Your task to perform on an android device: Open ESPN.com Image 0: 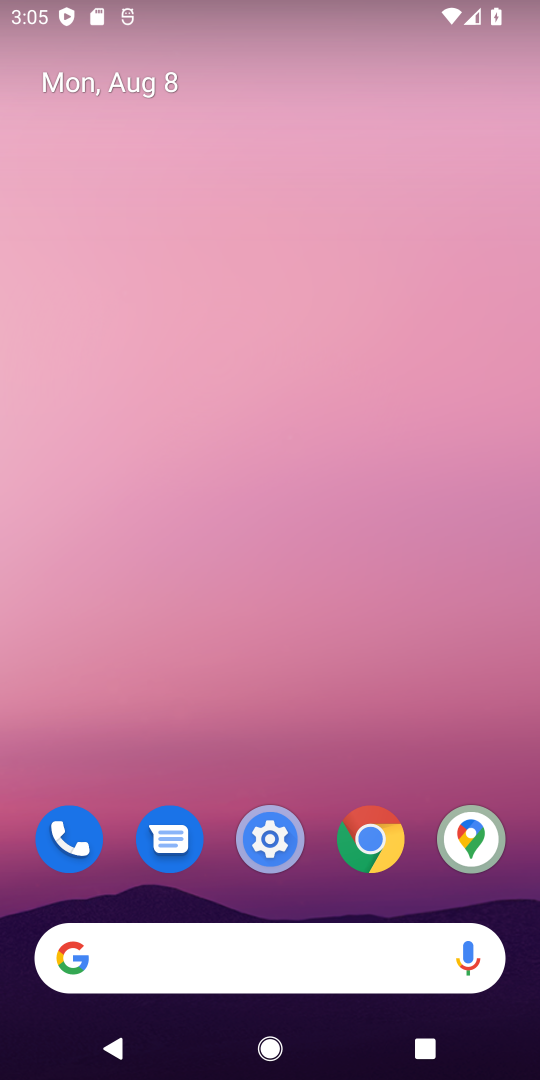
Step 0: click (389, 833)
Your task to perform on an android device: Open ESPN.com Image 1: 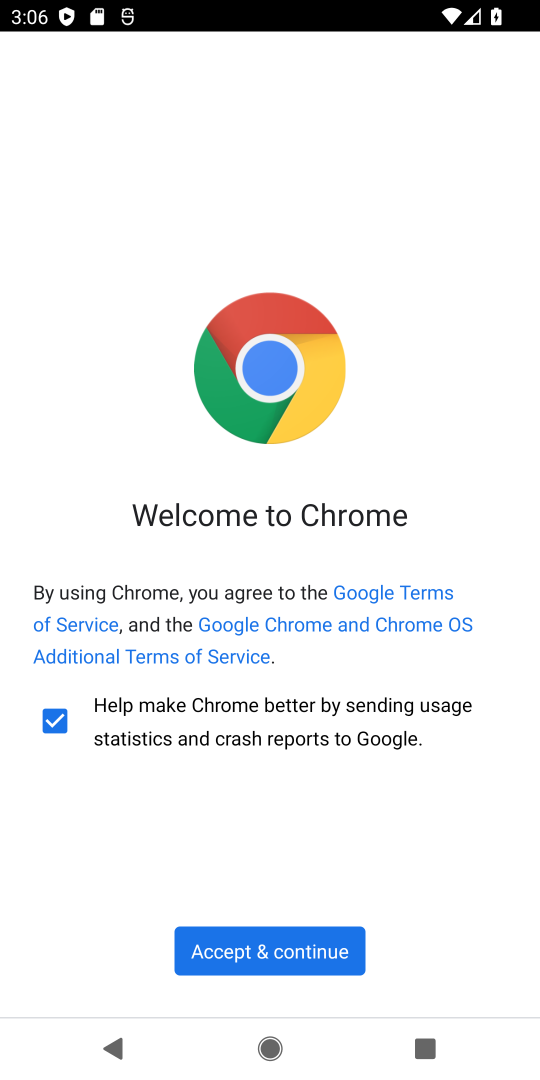
Step 1: click (295, 935)
Your task to perform on an android device: Open ESPN.com Image 2: 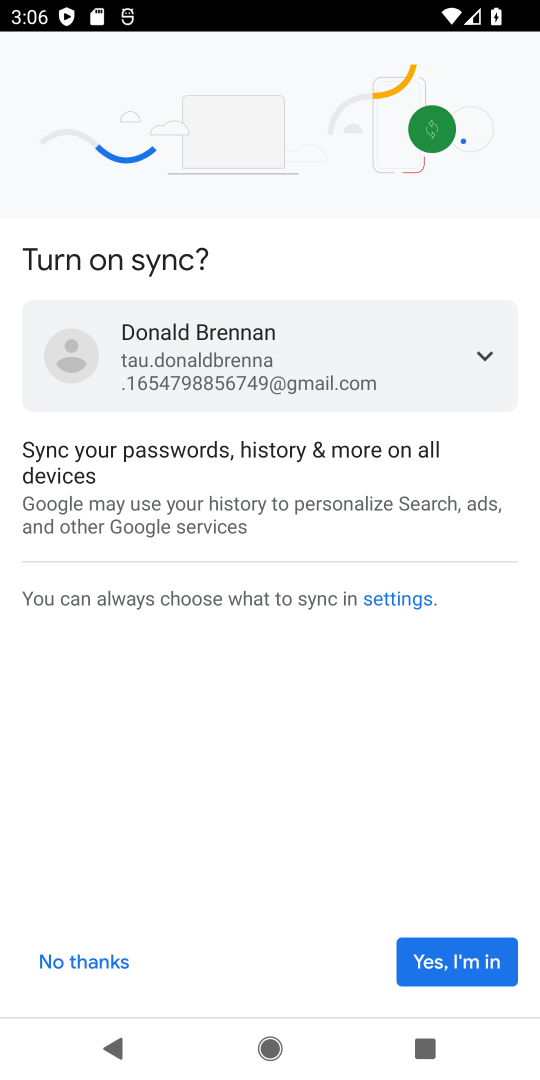
Step 2: click (497, 940)
Your task to perform on an android device: Open ESPN.com Image 3: 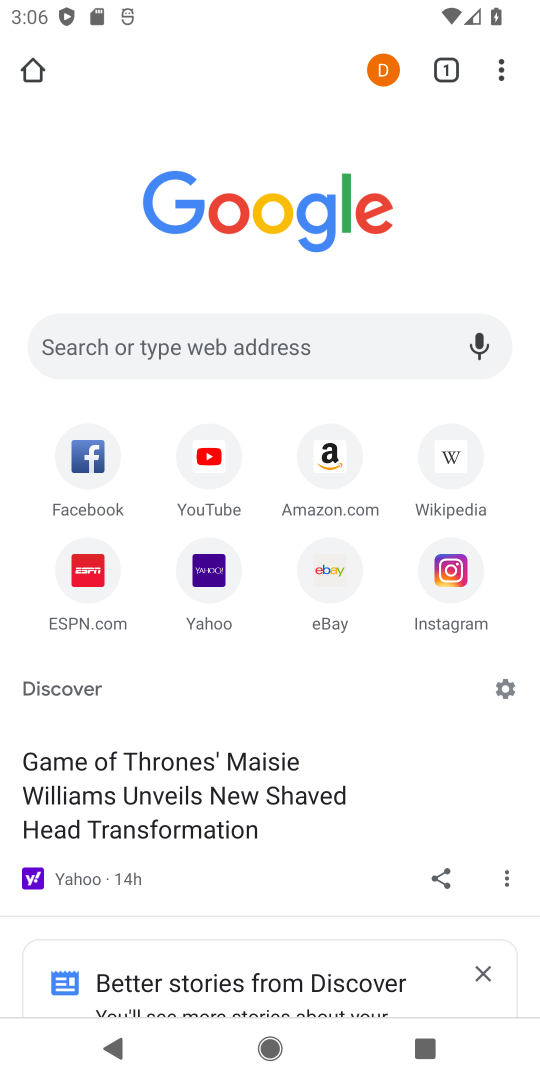
Step 3: click (69, 593)
Your task to perform on an android device: Open ESPN.com Image 4: 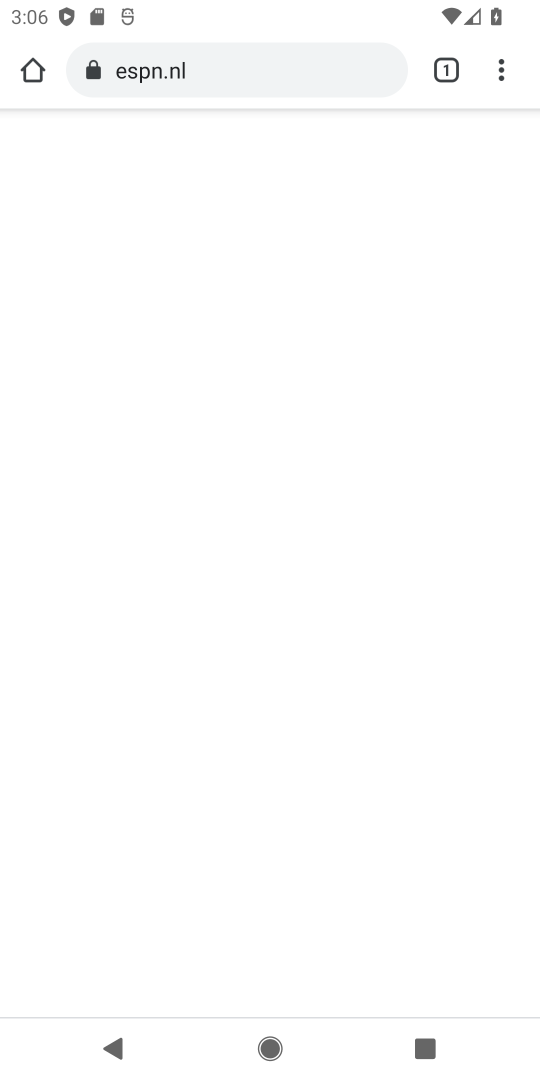
Step 4: task complete